Your task to perform on an android device: Search for vegetarian restaurants on Maps Image 0: 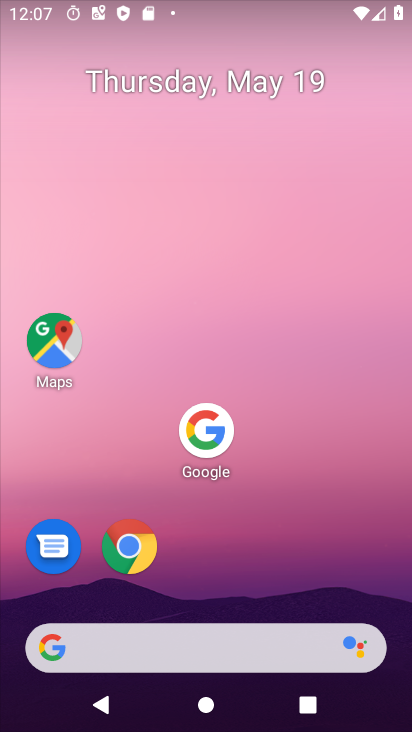
Step 0: click (56, 340)
Your task to perform on an android device: Search for vegetarian restaurants on Maps Image 1: 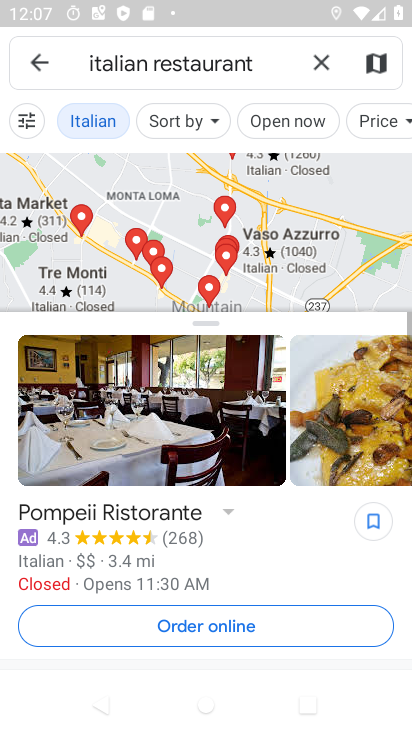
Step 1: click (317, 61)
Your task to perform on an android device: Search for vegetarian restaurants on Maps Image 2: 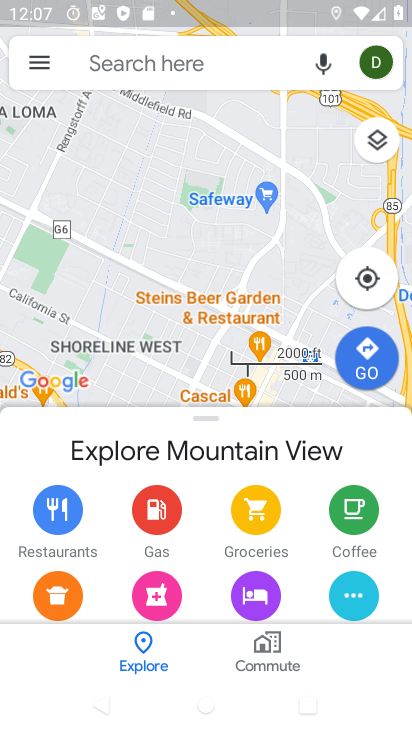
Step 2: click (182, 59)
Your task to perform on an android device: Search for vegetarian restaurants on Maps Image 3: 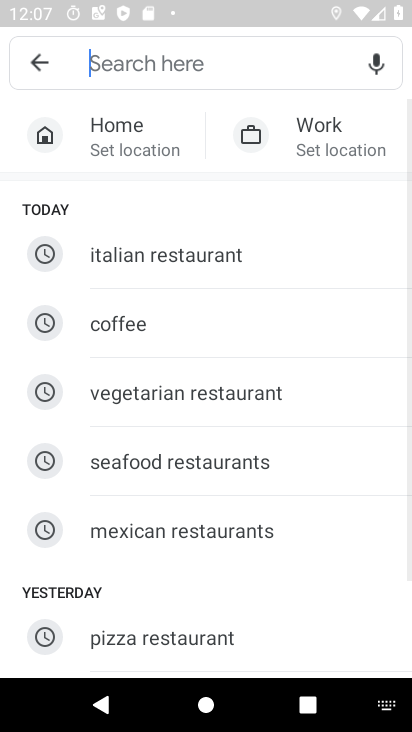
Step 3: click (207, 398)
Your task to perform on an android device: Search for vegetarian restaurants on Maps Image 4: 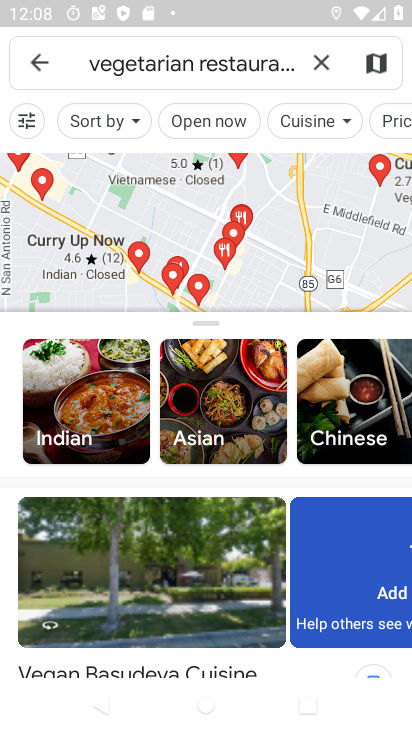
Step 4: task complete